Your task to perform on an android device: clear history in the chrome app Image 0: 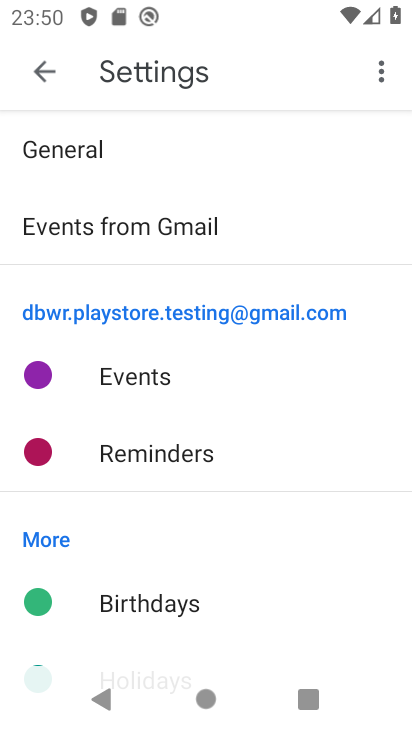
Step 0: press home button
Your task to perform on an android device: clear history in the chrome app Image 1: 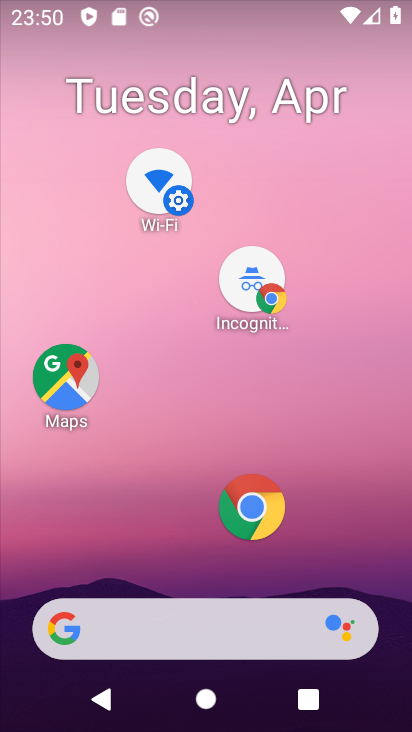
Step 1: click (239, 514)
Your task to perform on an android device: clear history in the chrome app Image 2: 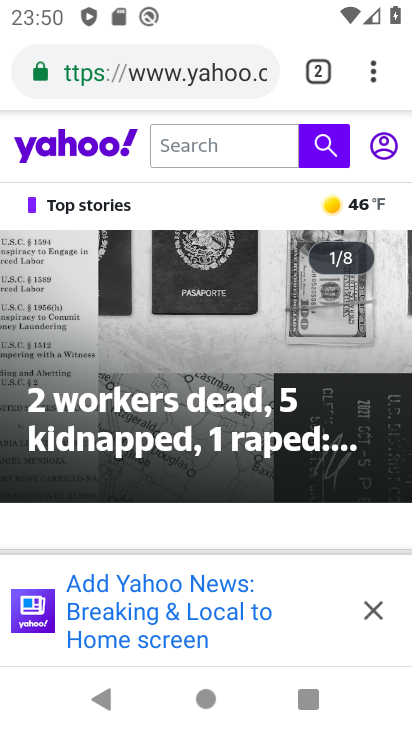
Step 2: click (376, 66)
Your task to perform on an android device: clear history in the chrome app Image 3: 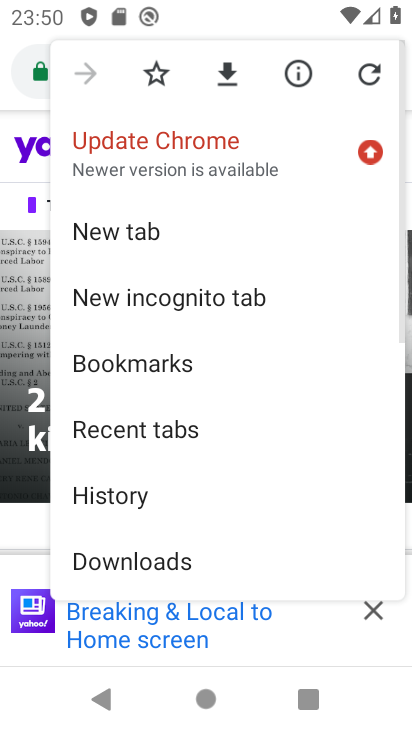
Step 3: drag from (116, 526) to (189, 277)
Your task to perform on an android device: clear history in the chrome app Image 4: 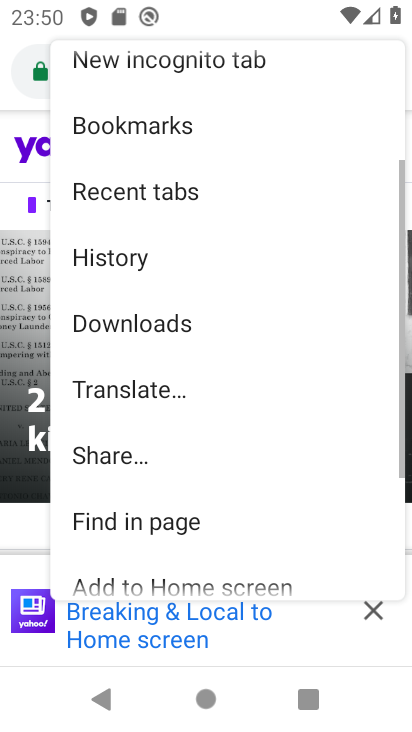
Step 4: drag from (147, 493) to (212, 281)
Your task to perform on an android device: clear history in the chrome app Image 5: 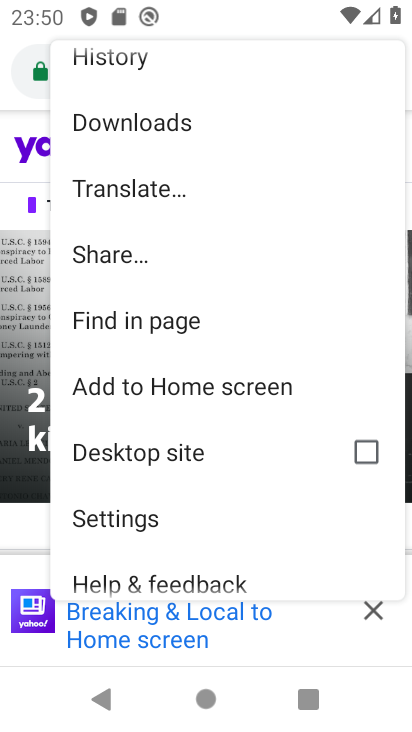
Step 5: click (98, 523)
Your task to perform on an android device: clear history in the chrome app Image 6: 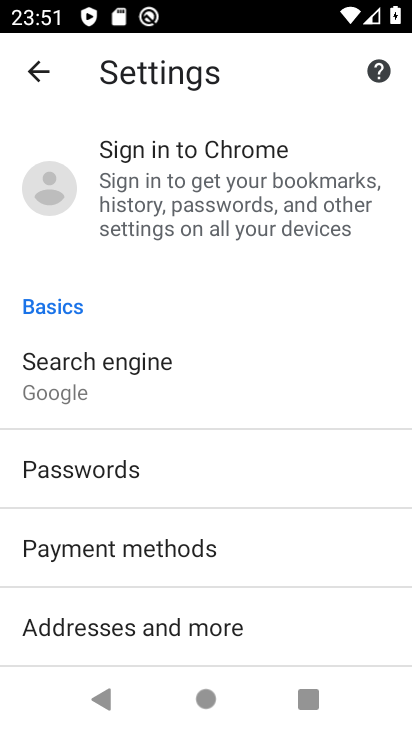
Step 6: drag from (130, 618) to (181, 333)
Your task to perform on an android device: clear history in the chrome app Image 7: 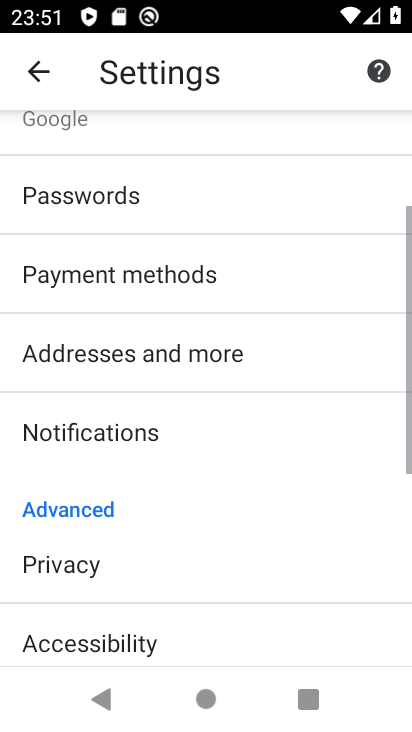
Step 7: drag from (229, 582) to (302, 170)
Your task to perform on an android device: clear history in the chrome app Image 8: 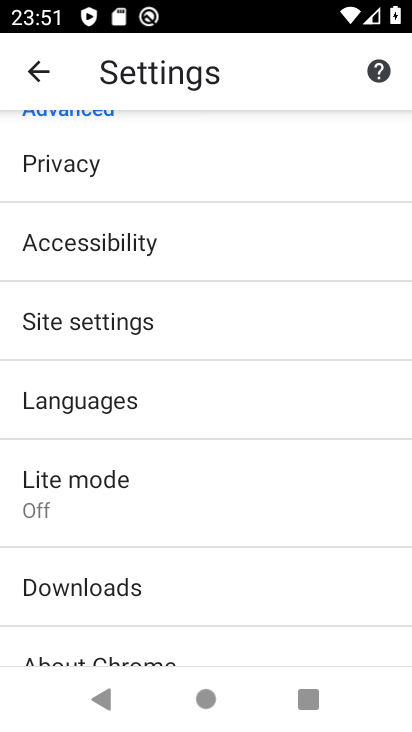
Step 8: drag from (112, 552) to (148, 337)
Your task to perform on an android device: clear history in the chrome app Image 9: 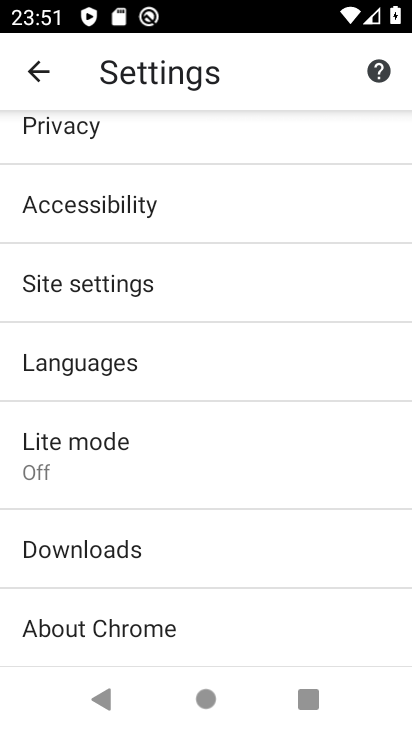
Step 9: drag from (199, 219) to (147, 469)
Your task to perform on an android device: clear history in the chrome app Image 10: 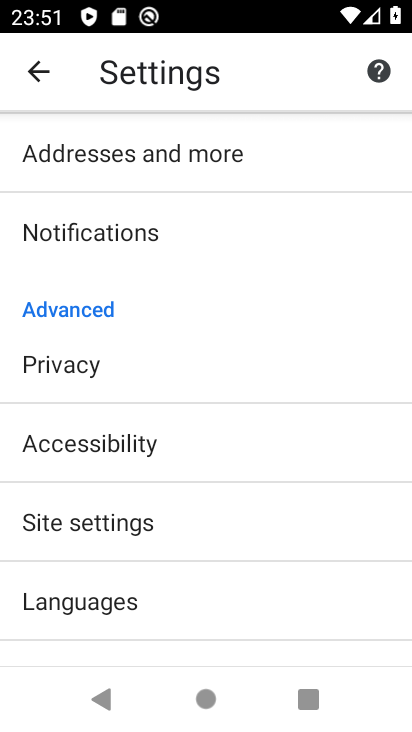
Step 10: click (177, 381)
Your task to perform on an android device: clear history in the chrome app Image 11: 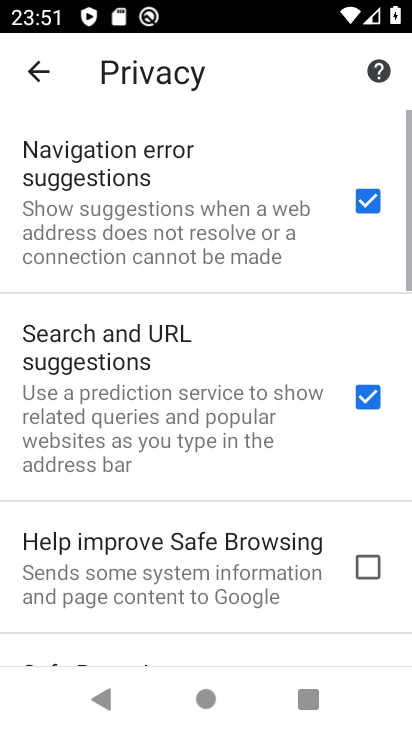
Step 11: drag from (100, 593) to (121, 345)
Your task to perform on an android device: clear history in the chrome app Image 12: 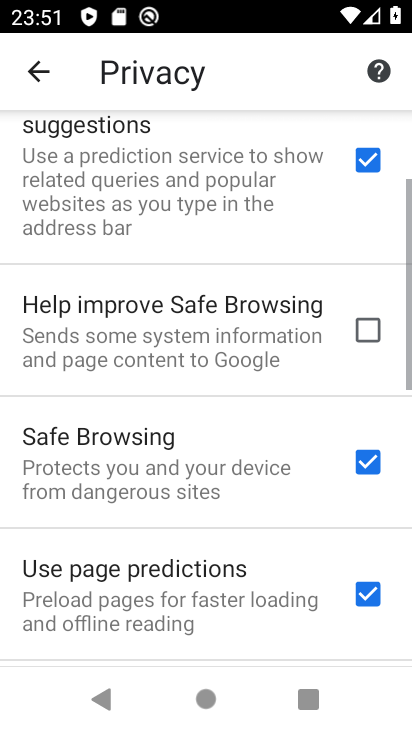
Step 12: drag from (79, 519) to (118, 289)
Your task to perform on an android device: clear history in the chrome app Image 13: 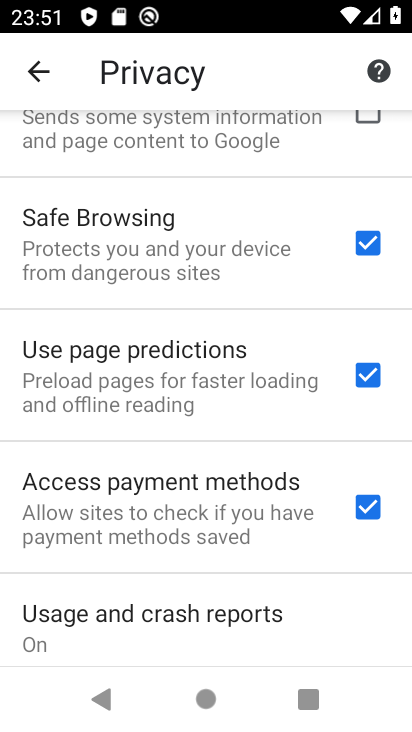
Step 13: drag from (115, 497) to (135, 238)
Your task to perform on an android device: clear history in the chrome app Image 14: 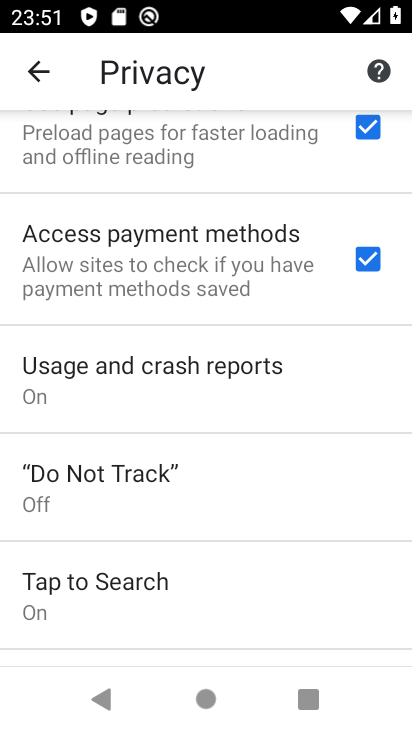
Step 14: drag from (154, 581) to (159, 289)
Your task to perform on an android device: clear history in the chrome app Image 15: 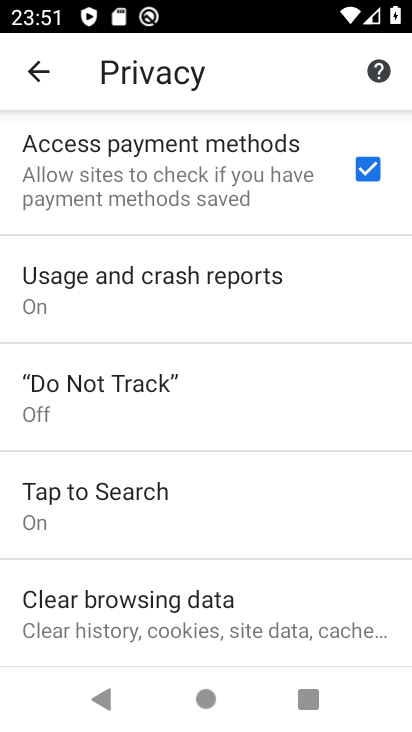
Step 15: drag from (172, 576) to (168, 241)
Your task to perform on an android device: clear history in the chrome app Image 16: 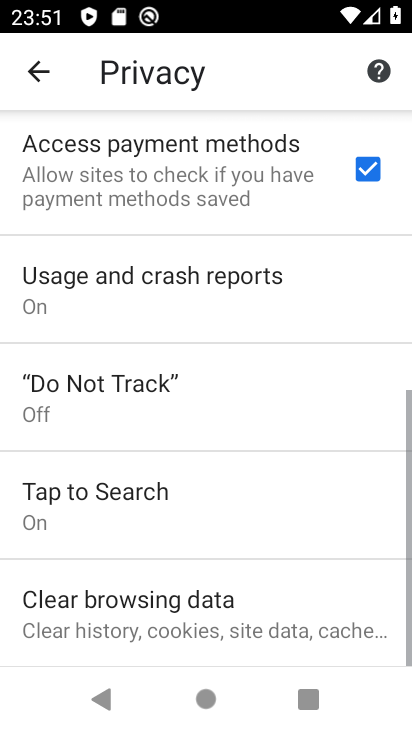
Step 16: click (95, 608)
Your task to perform on an android device: clear history in the chrome app Image 17: 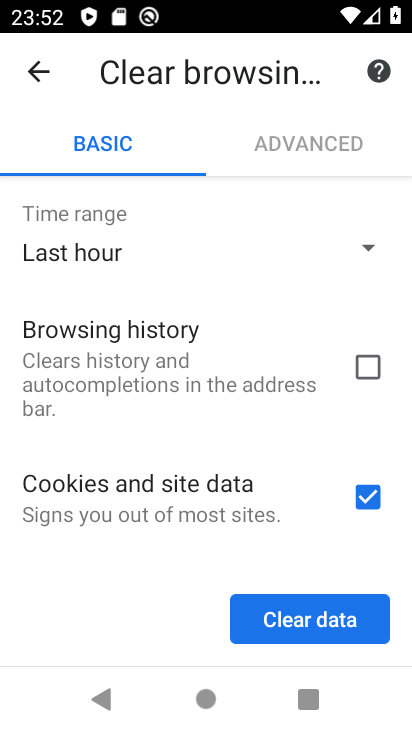
Step 17: click (309, 611)
Your task to perform on an android device: clear history in the chrome app Image 18: 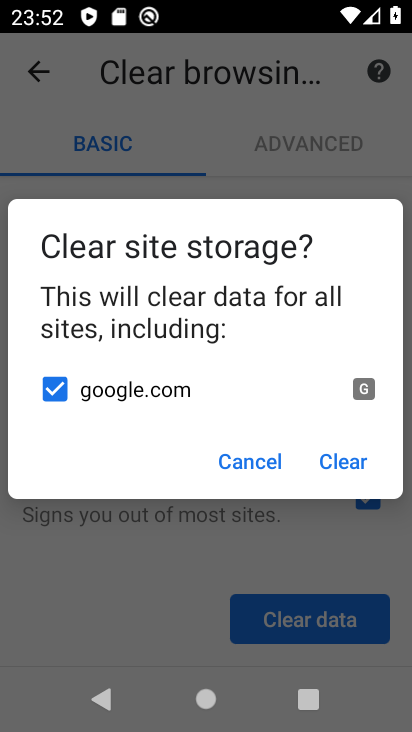
Step 18: click (340, 462)
Your task to perform on an android device: clear history in the chrome app Image 19: 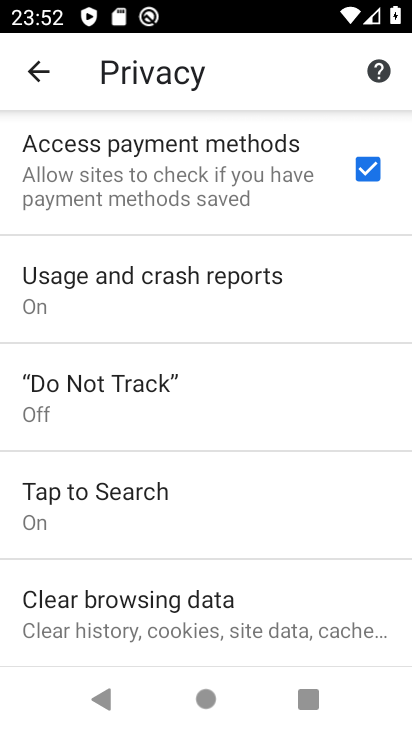
Step 19: task complete